Your task to perform on an android device: Is it going to rain this weekend? Image 0: 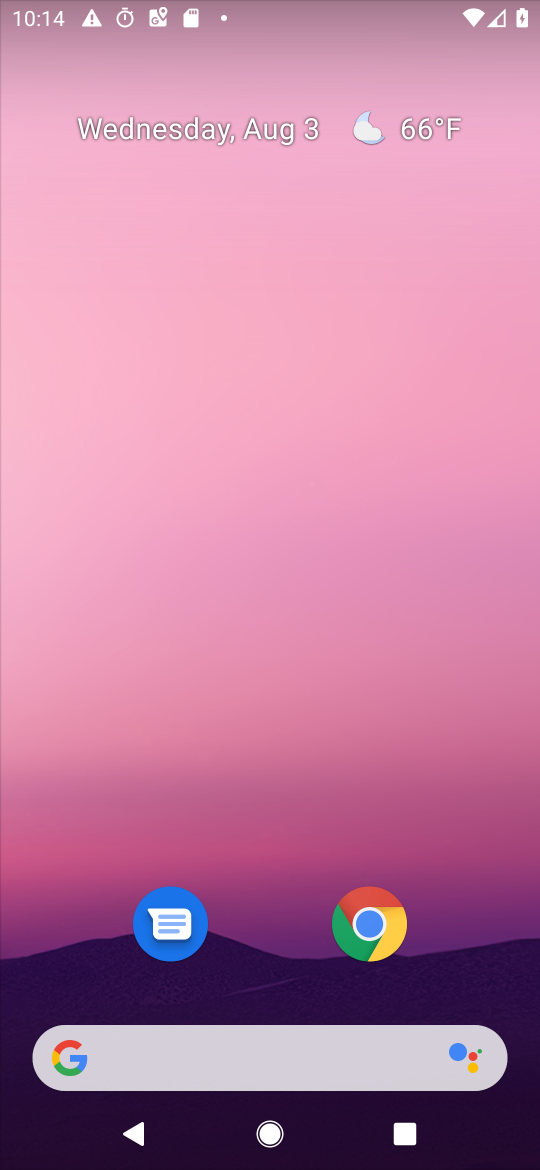
Step 0: click (369, 127)
Your task to perform on an android device: Is it going to rain this weekend? Image 1: 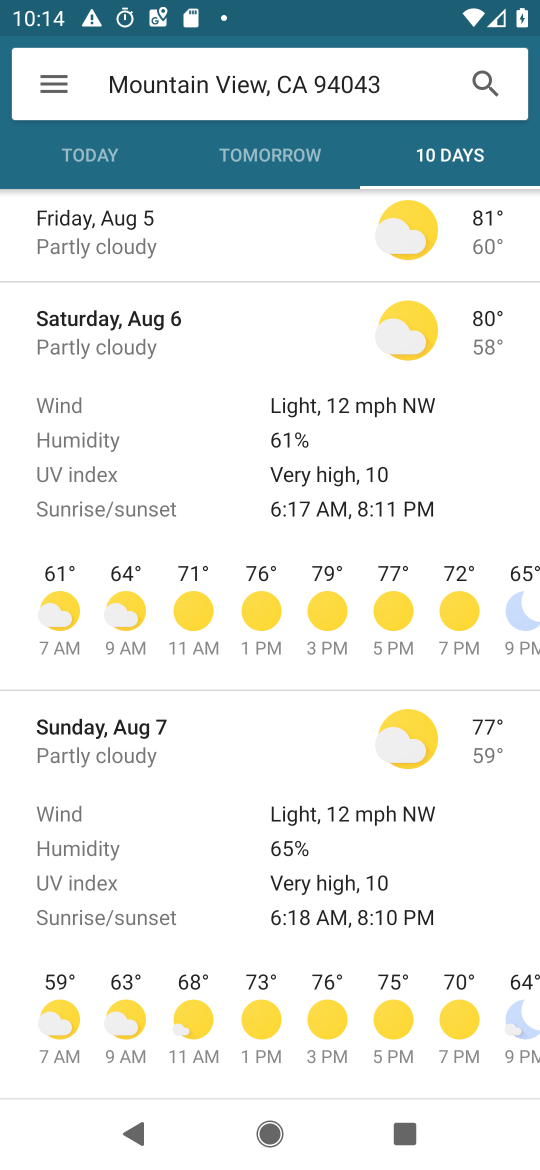
Step 1: task complete